Your task to perform on an android device: change timer sound Image 0: 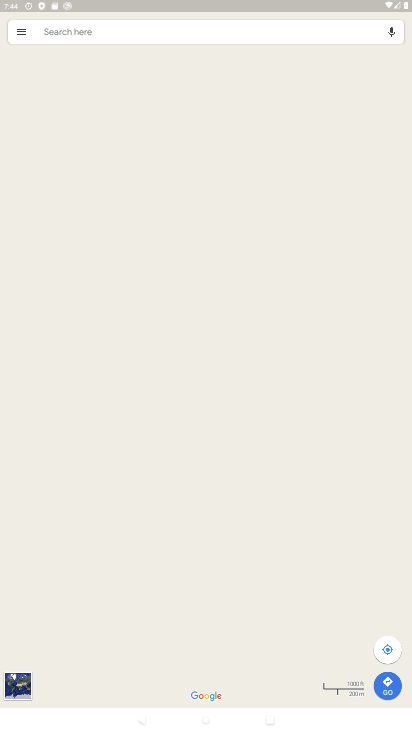
Step 0: press home button
Your task to perform on an android device: change timer sound Image 1: 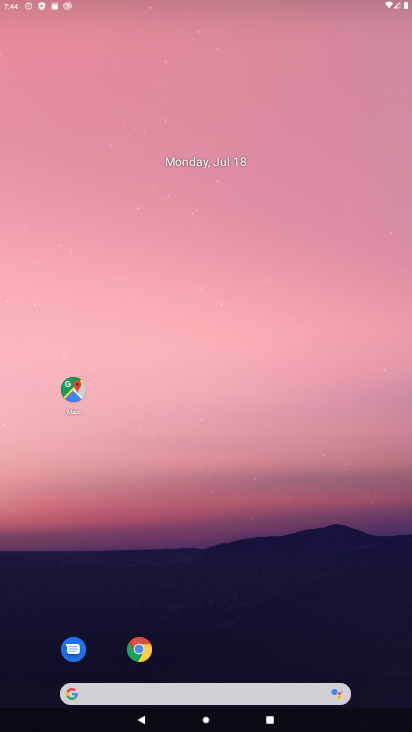
Step 1: drag from (298, 580) to (307, 196)
Your task to perform on an android device: change timer sound Image 2: 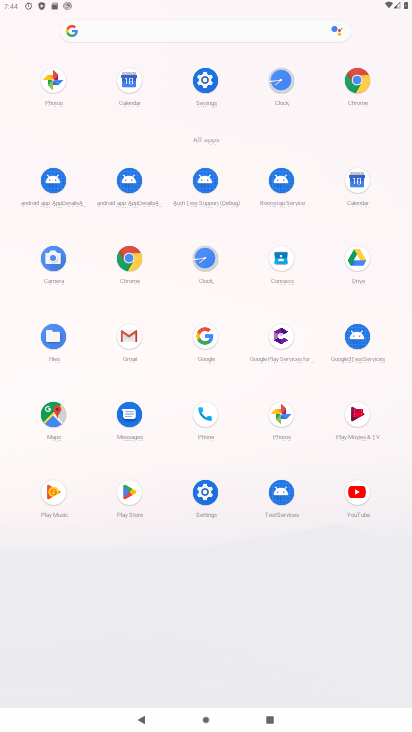
Step 2: click (201, 266)
Your task to perform on an android device: change timer sound Image 3: 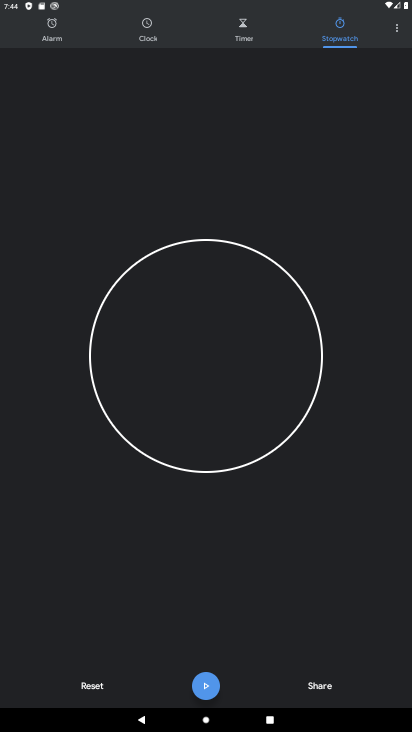
Step 3: click (402, 35)
Your task to perform on an android device: change timer sound Image 4: 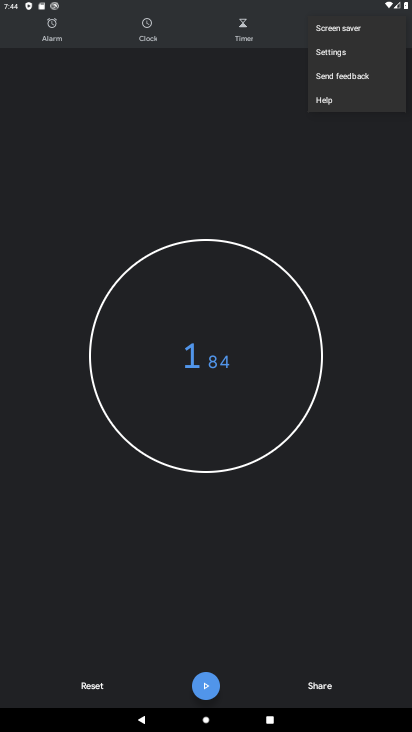
Step 4: click (336, 56)
Your task to perform on an android device: change timer sound Image 5: 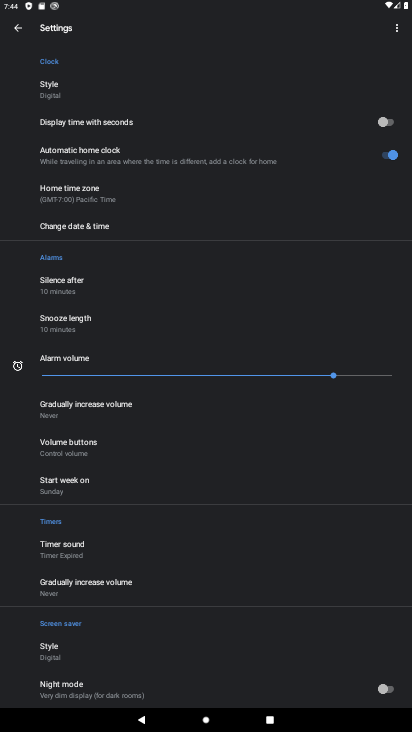
Step 5: click (76, 552)
Your task to perform on an android device: change timer sound Image 6: 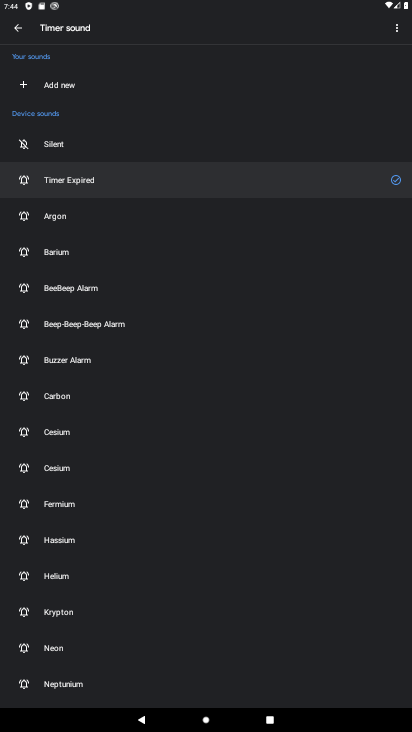
Step 6: click (87, 232)
Your task to perform on an android device: change timer sound Image 7: 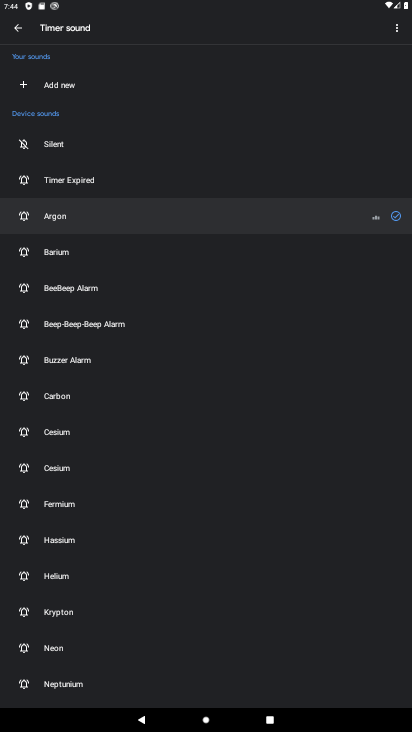
Step 7: task complete